Your task to perform on an android device: clear history in the chrome app Image 0: 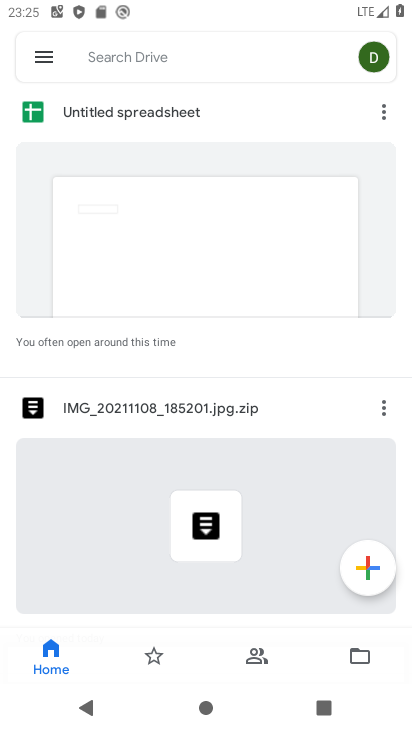
Step 0: press back button
Your task to perform on an android device: clear history in the chrome app Image 1: 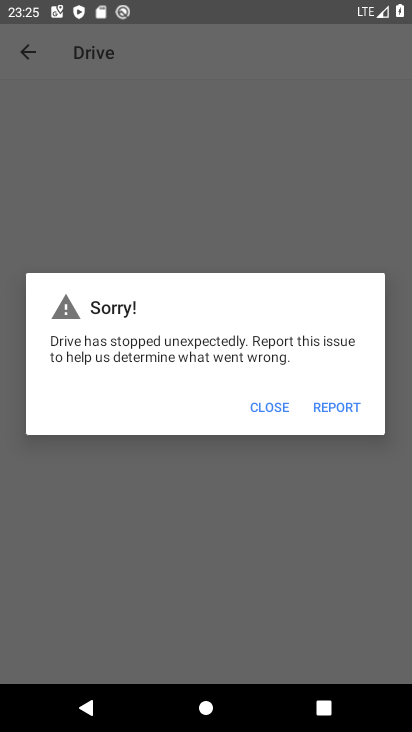
Step 1: press home button
Your task to perform on an android device: clear history in the chrome app Image 2: 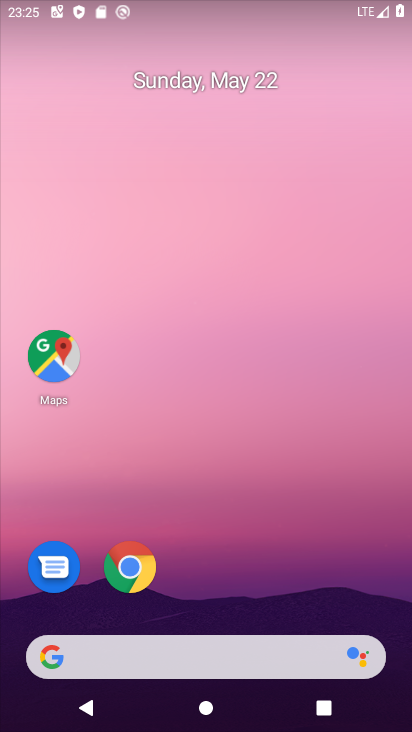
Step 2: drag from (227, 590) to (278, 47)
Your task to perform on an android device: clear history in the chrome app Image 3: 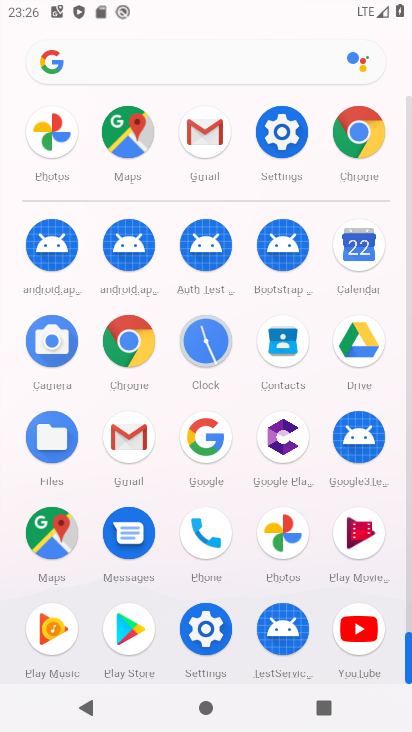
Step 3: click (361, 128)
Your task to perform on an android device: clear history in the chrome app Image 4: 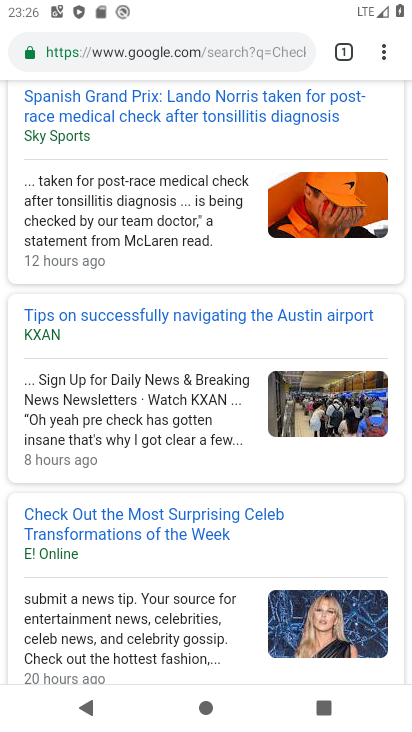
Step 4: drag from (384, 51) to (204, 571)
Your task to perform on an android device: clear history in the chrome app Image 5: 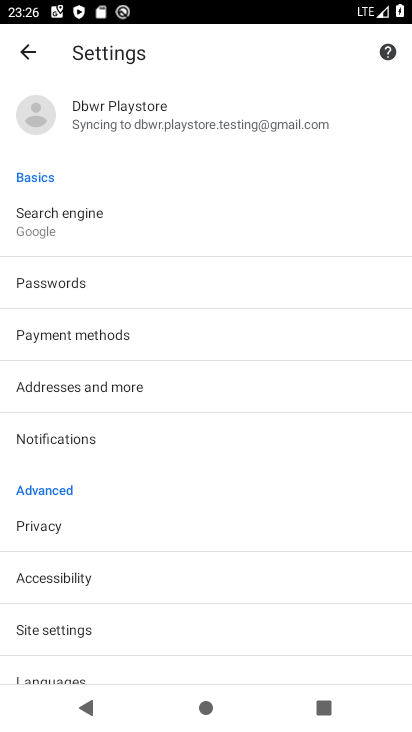
Step 5: click (29, 51)
Your task to perform on an android device: clear history in the chrome app Image 6: 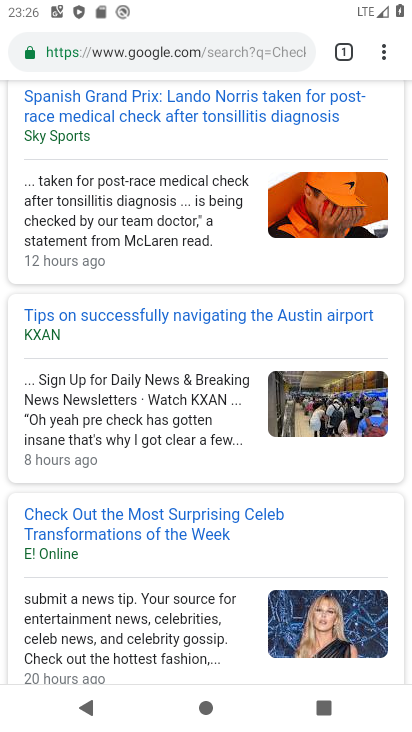
Step 6: drag from (386, 49) to (206, 296)
Your task to perform on an android device: clear history in the chrome app Image 7: 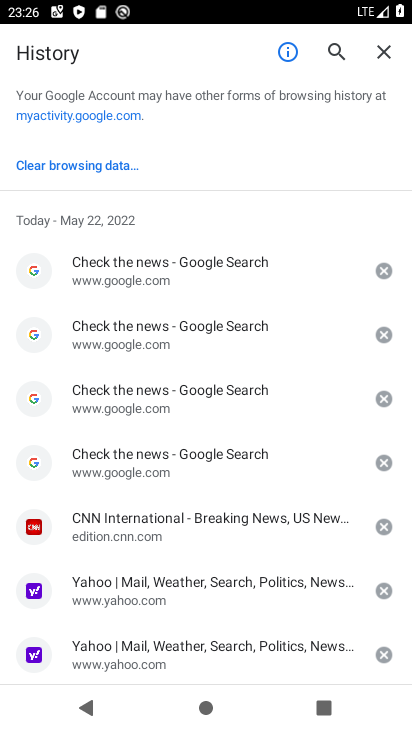
Step 7: click (51, 159)
Your task to perform on an android device: clear history in the chrome app Image 8: 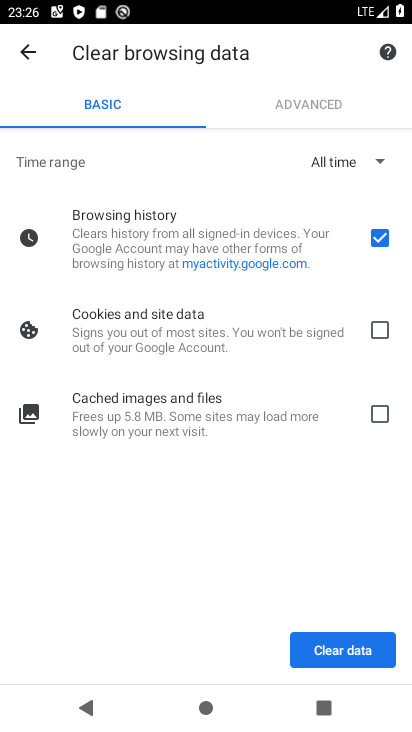
Step 8: click (344, 647)
Your task to perform on an android device: clear history in the chrome app Image 9: 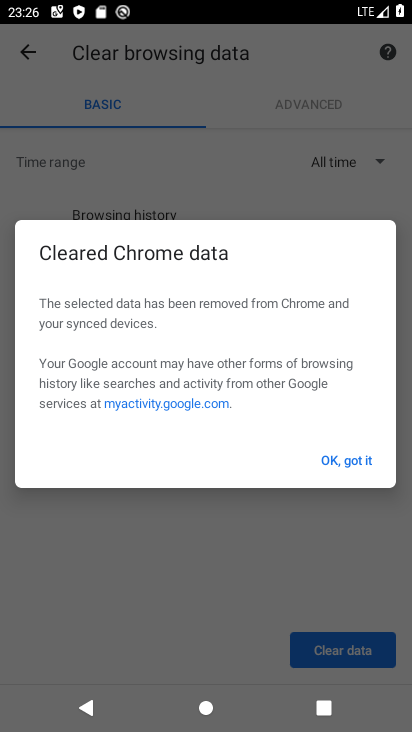
Step 9: click (345, 451)
Your task to perform on an android device: clear history in the chrome app Image 10: 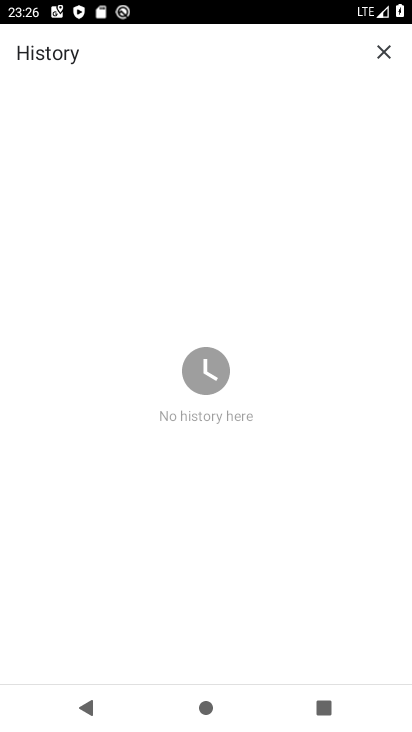
Step 10: task complete